Your task to perform on an android device: Open Chrome and go to settings Image 0: 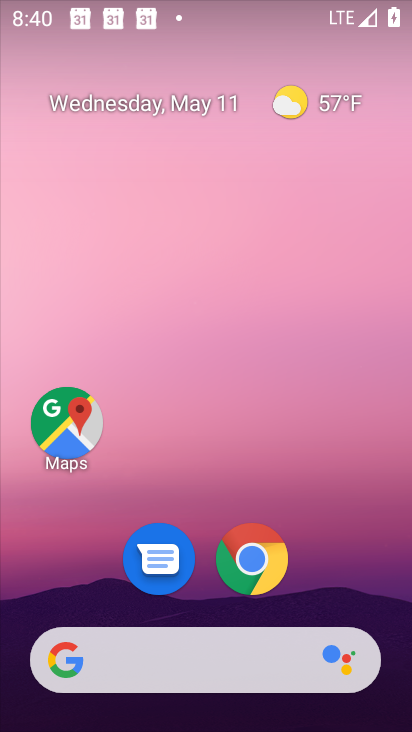
Step 0: click (268, 570)
Your task to perform on an android device: Open Chrome and go to settings Image 1: 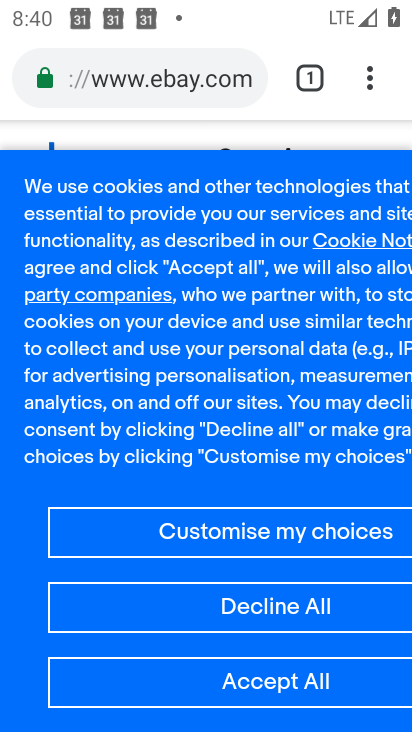
Step 1: task complete